Your task to perform on an android device: turn on the 24-hour format for clock Image 0: 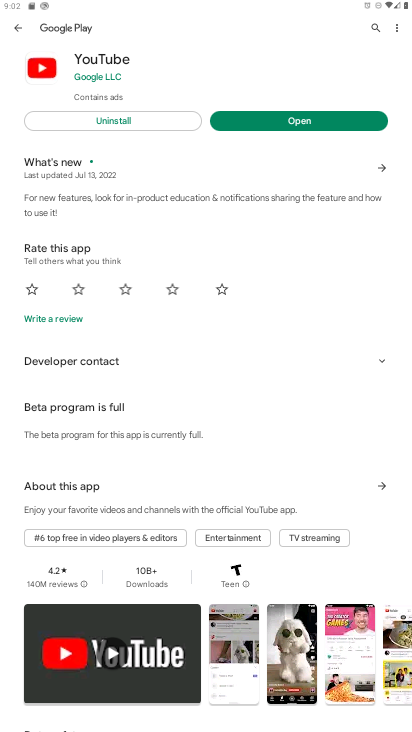
Step 0: press home button
Your task to perform on an android device: turn on the 24-hour format for clock Image 1: 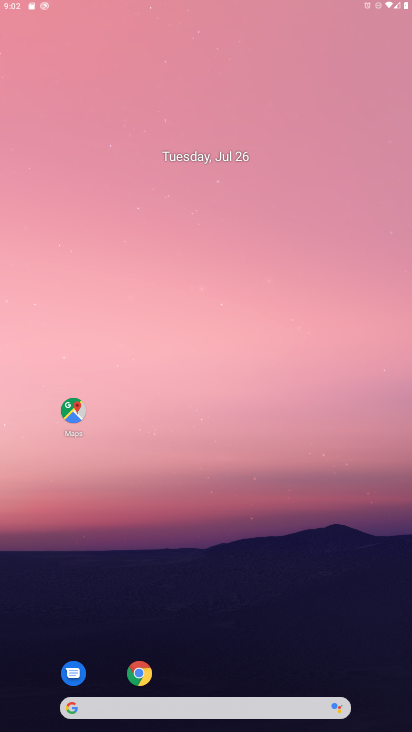
Step 1: drag from (403, 685) to (175, 46)
Your task to perform on an android device: turn on the 24-hour format for clock Image 2: 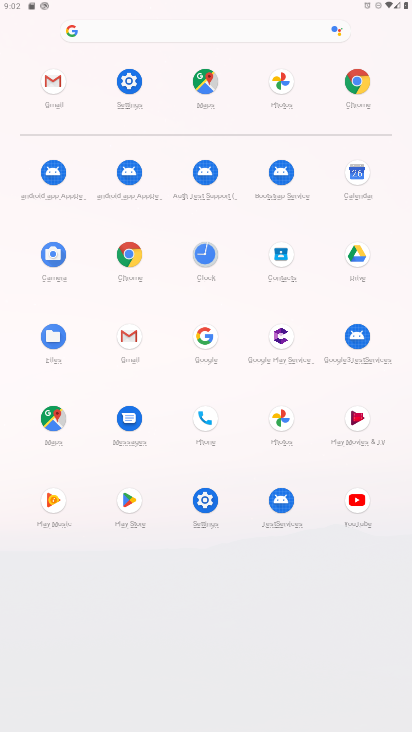
Step 2: click (195, 256)
Your task to perform on an android device: turn on the 24-hour format for clock Image 3: 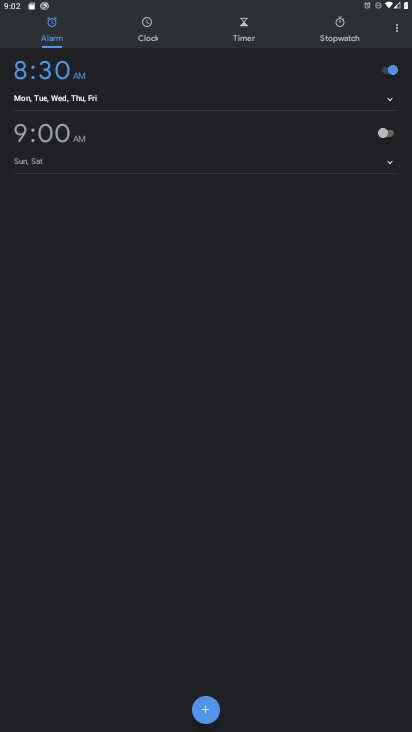
Step 3: click (391, 32)
Your task to perform on an android device: turn on the 24-hour format for clock Image 4: 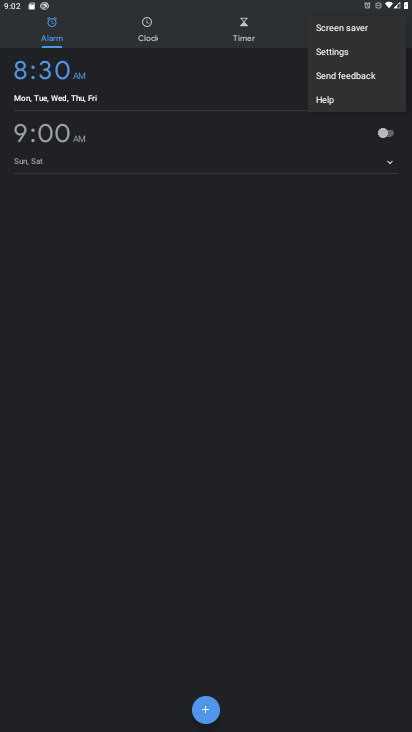
Step 4: click (324, 59)
Your task to perform on an android device: turn on the 24-hour format for clock Image 5: 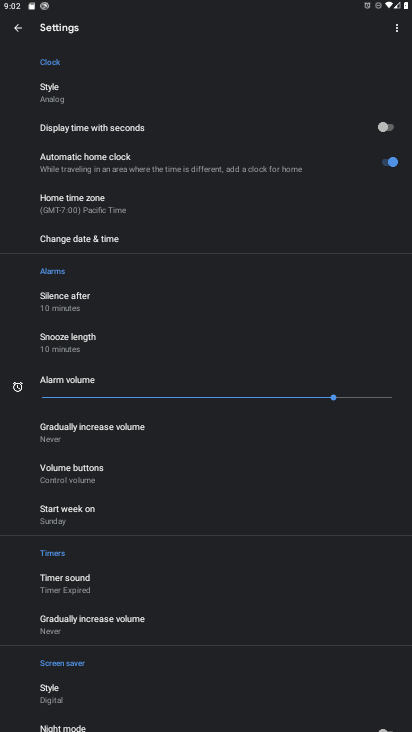
Step 5: click (98, 237)
Your task to perform on an android device: turn on the 24-hour format for clock Image 6: 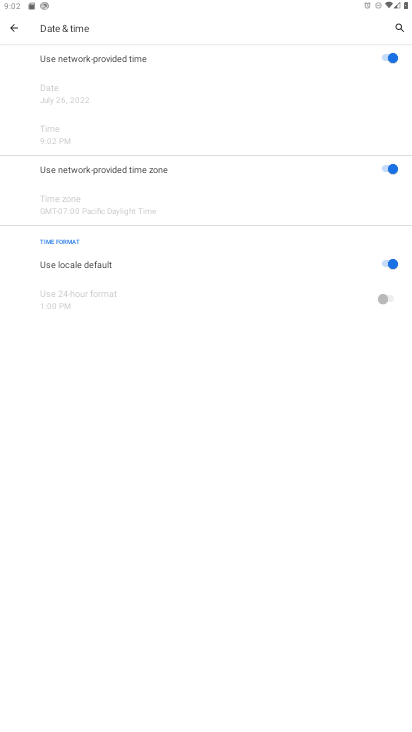
Step 6: task complete